Your task to perform on an android device: Open the web browser Image 0: 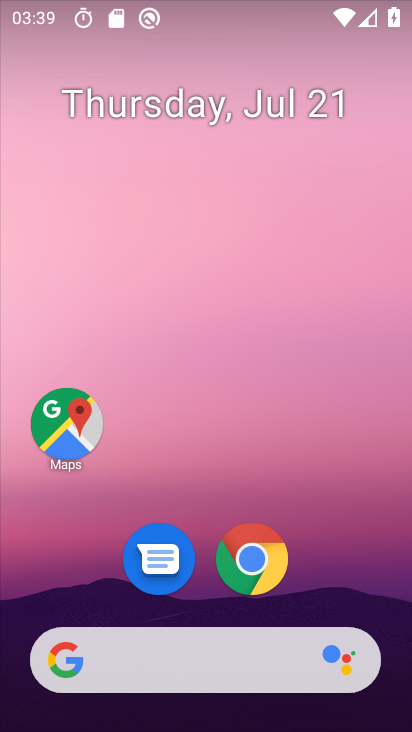
Step 0: drag from (330, 531) to (367, 91)
Your task to perform on an android device: Open the web browser Image 1: 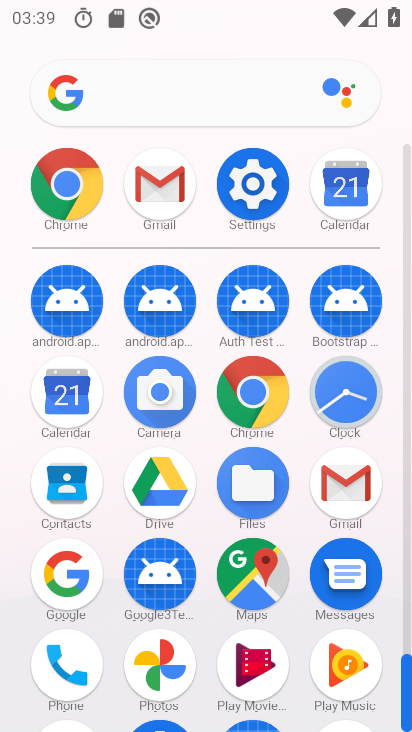
Step 1: click (269, 389)
Your task to perform on an android device: Open the web browser Image 2: 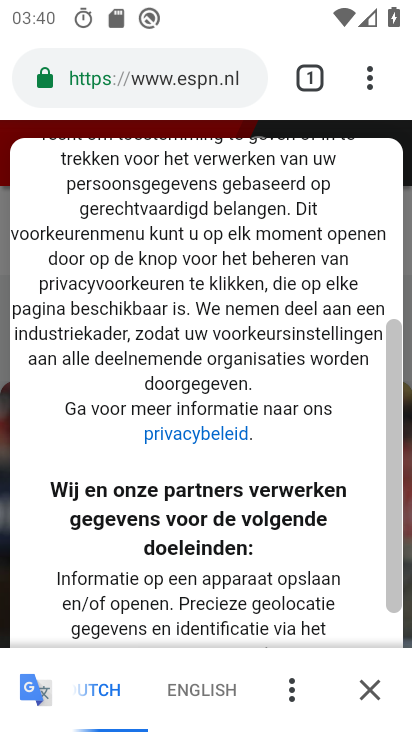
Step 2: task complete